Your task to perform on an android device: open chrome privacy settings Image 0: 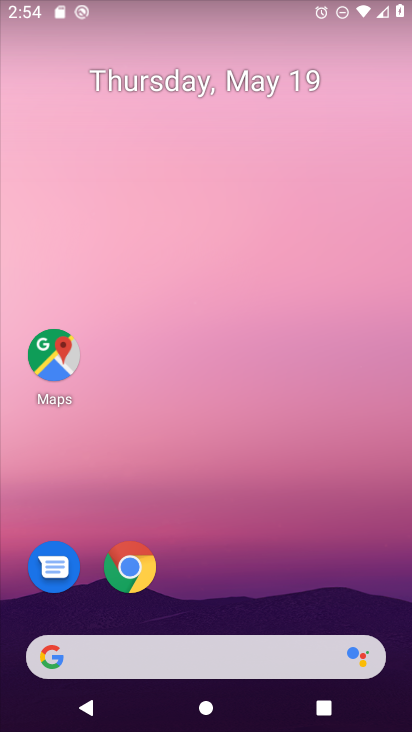
Step 0: click (133, 556)
Your task to perform on an android device: open chrome privacy settings Image 1: 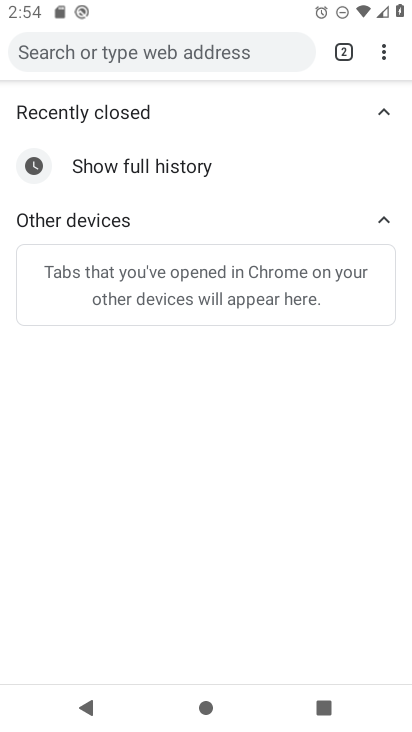
Step 1: click (379, 50)
Your task to perform on an android device: open chrome privacy settings Image 2: 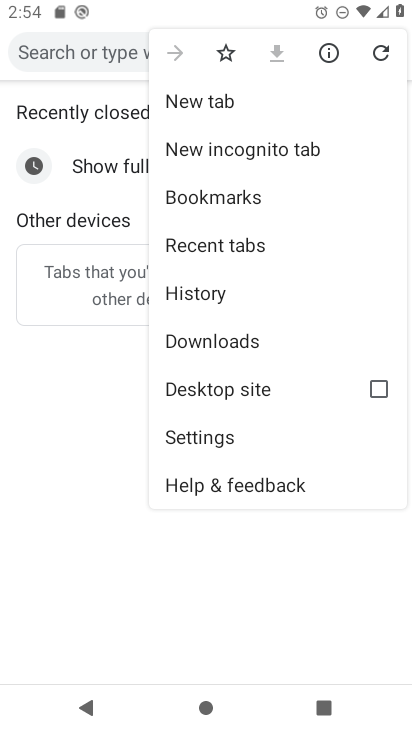
Step 2: click (252, 433)
Your task to perform on an android device: open chrome privacy settings Image 3: 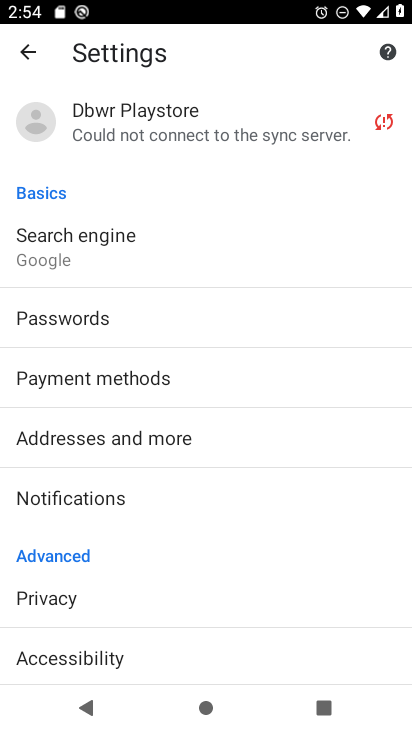
Step 3: click (162, 603)
Your task to perform on an android device: open chrome privacy settings Image 4: 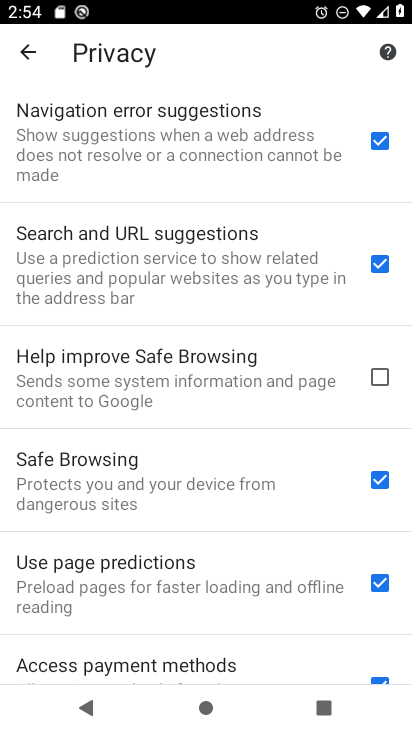
Step 4: task complete